Your task to perform on an android device: delete location history Image 0: 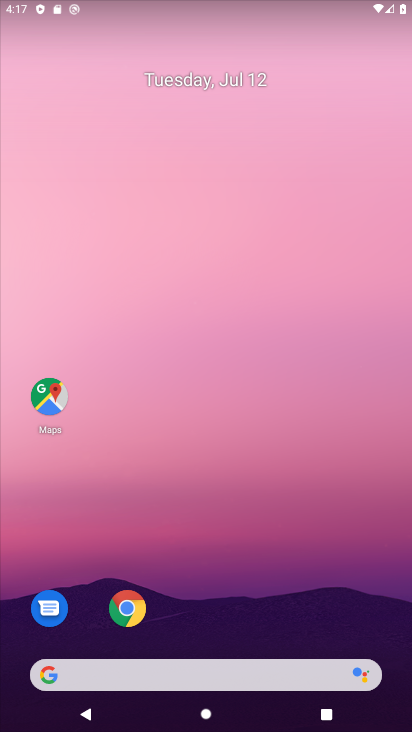
Step 0: click (49, 409)
Your task to perform on an android device: delete location history Image 1: 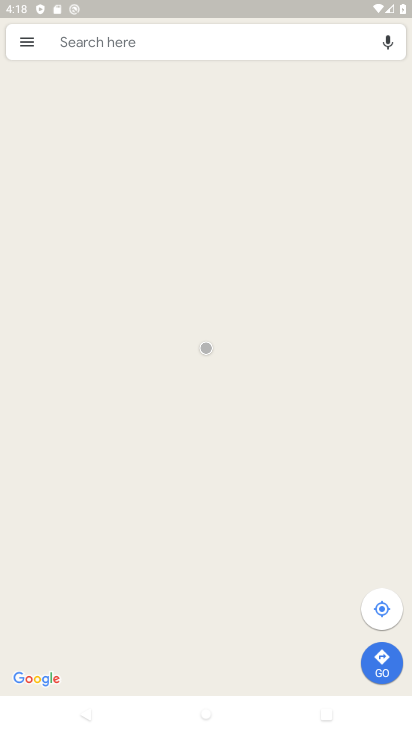
Step 1: click (33, 44)
Your task to perform on an android device: delete location history Image 2: 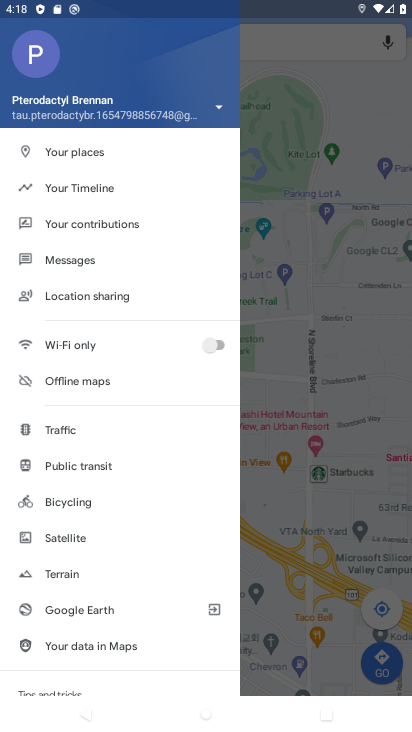
Step 2: click (89, 187)
Your task to perform on an android device: delete location history Image 3: 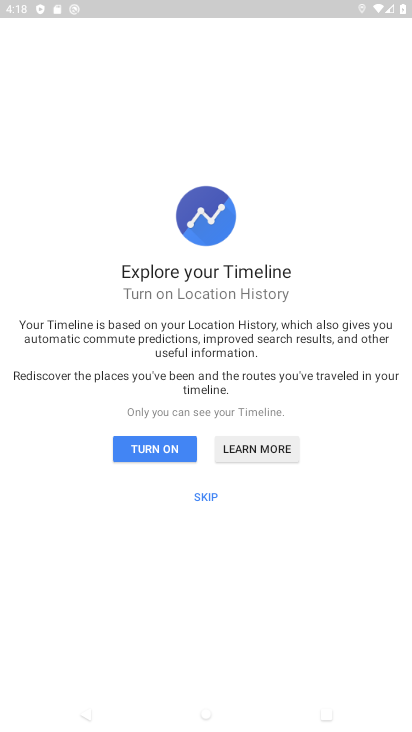
Step 3: click (169, 450)
Your task to perform on an android device: delete location history Image 4: 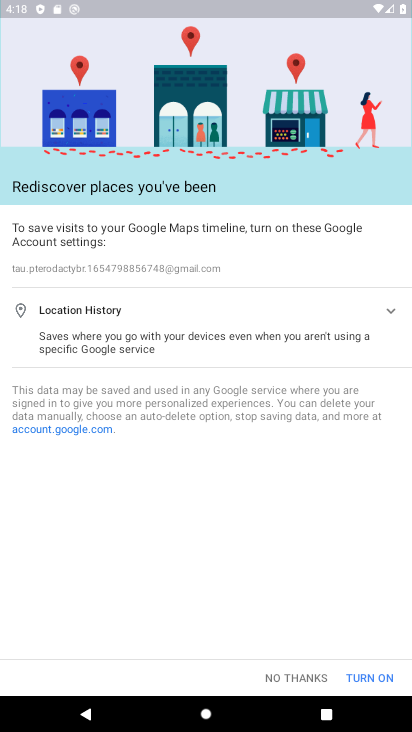
Step 4: click (375, 678)
Your task to perform on an android device: delete location history Image 5: 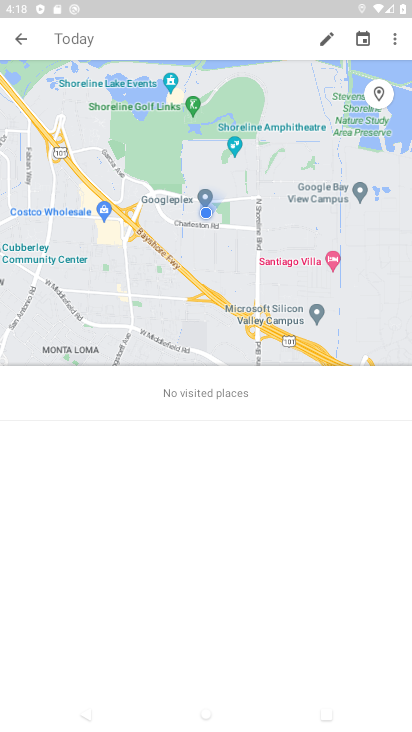
Step 5: click (390, 36)
Your task to perform on an android device: delete location history Image 6: 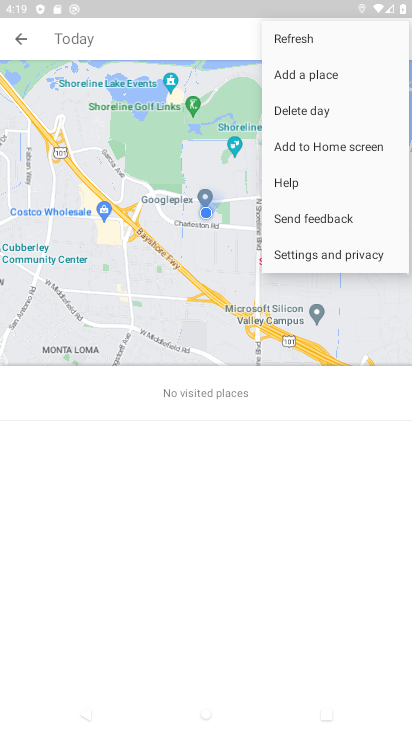
Step 6: click (315, 255)
Your task to perform on an android device: delete location history Image 7: 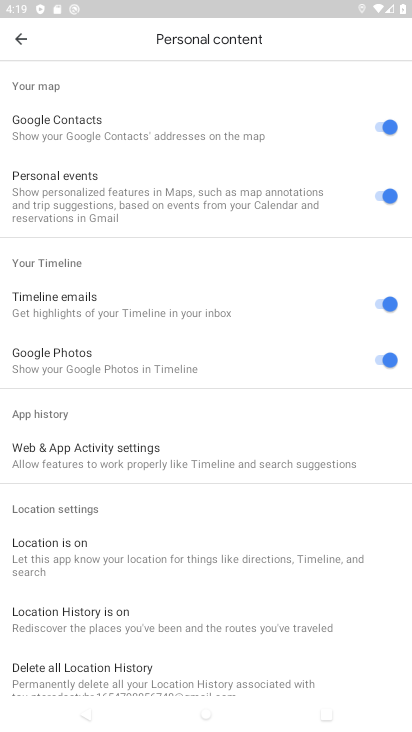
Step 7: click (113, 668)
Your task to perform on an android device: delete location history Image 8: 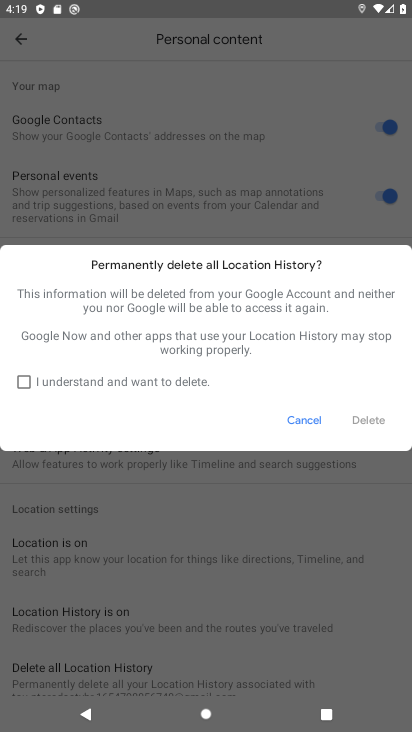
Step 8: click (22, 381)
Your task to perform on an android device: delete location history Image 9: 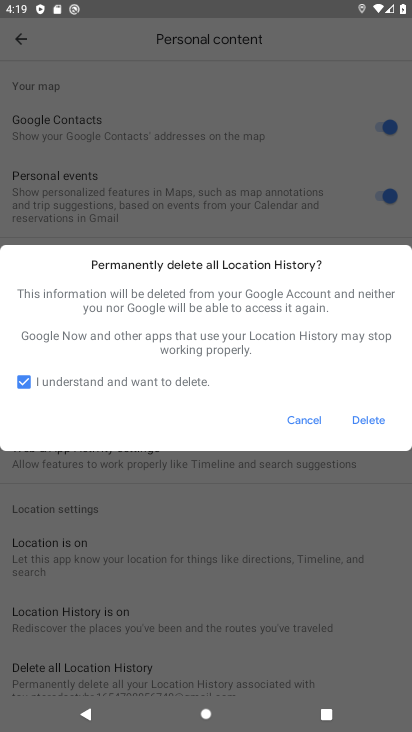
Step 9: click (373, 424)
Your task to perform on an android device: delete location history Image 10: 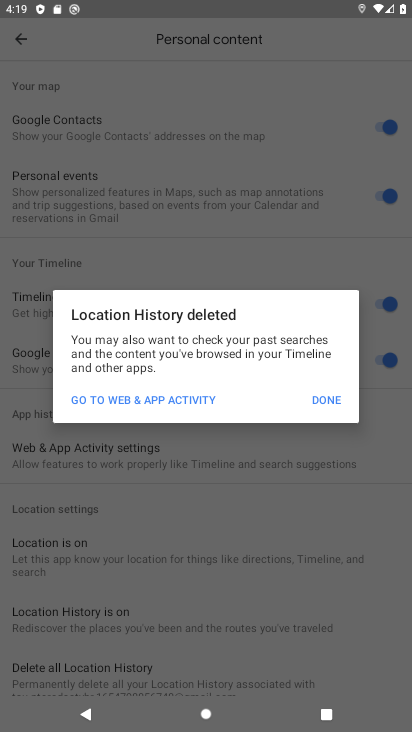
Step 10: click (328, 380)
Your task to perform on an android device: delete location history Image 11: 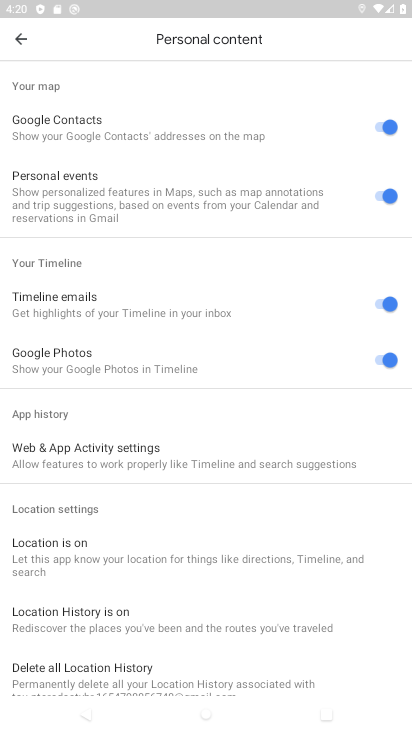
Step 11: task complete